Your task to perform on an android device: Go to network settings Image 0: 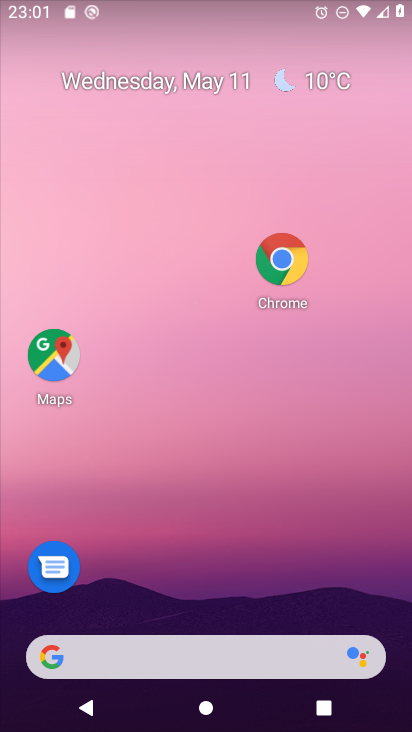
Step 0: press home button
Your task to perform on an android device: Go to network settings Image 1: 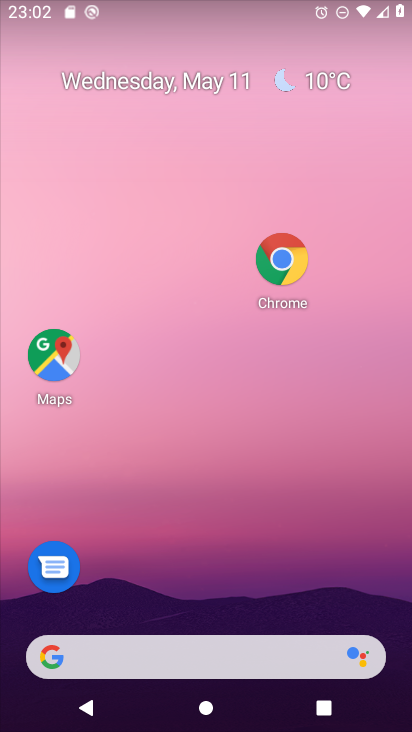
Step 1: drag from (167, 661) to (325, 162)
Your task to perform on an android device: Go to network settings Image 2: 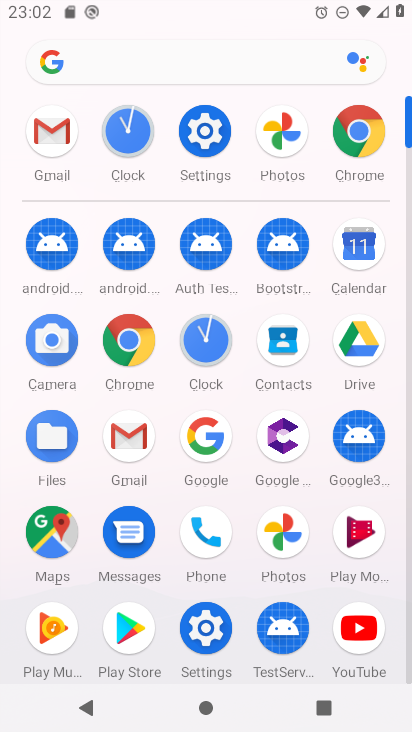
Step 2: click (222, 121)
Your task to perform on an android device: Go to network settings Image 3: 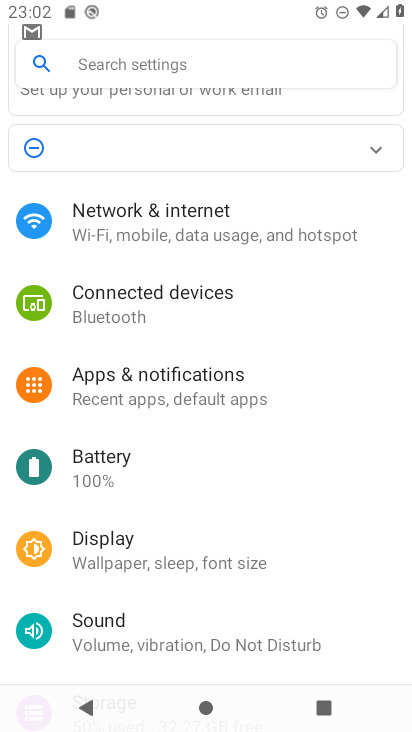
Step 3: click (175, 204)
Your task to perform on an android device: Go to network settings Image 4: 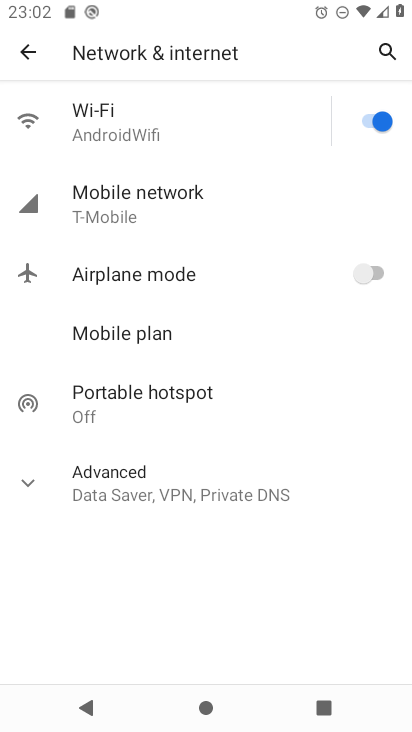
Step 4: task complete